Your task to perform on an android device: add a label to a message in the gmail app Image 0: 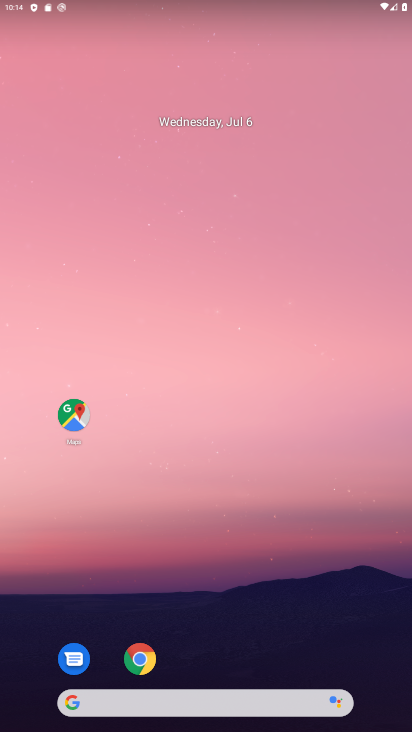
Step 0: click (203, 674)
Your task to perform on an android device: add a label to a message in the gmail app Image 1: 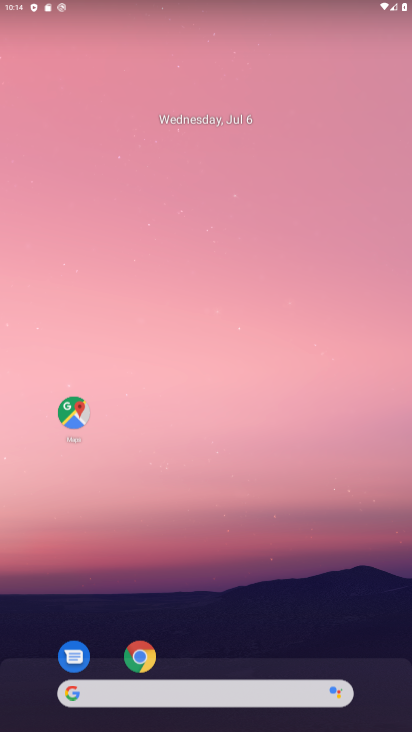
Step 1: drag from (206, 197) to (211, 41)
Your task to perform on an android device: add a label to a message in the gmail app Image 2: 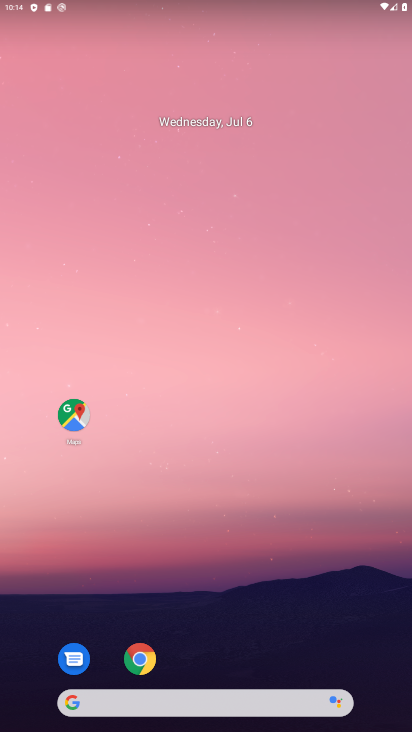
Step 2: drag from (215, 602) to (233, 210)
Your task to perform on an android device: add a label to a message in the gmail app Image 3: 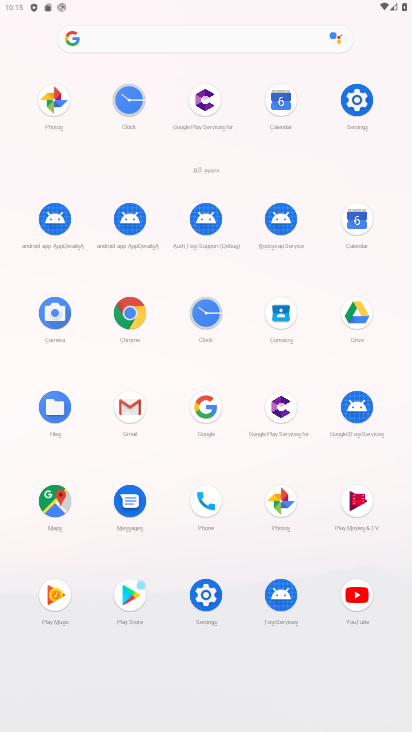
Step 3: click (128, 400)
Your task to perform on an android device: add a label to a message in the gmail app Image 4: 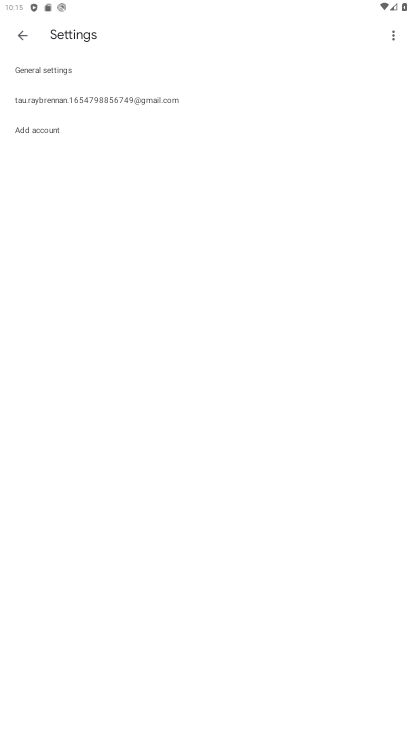
Step 4: click (26, 35)
Your task to perform on an android device: add a label to a message in the gmail app Image 5: 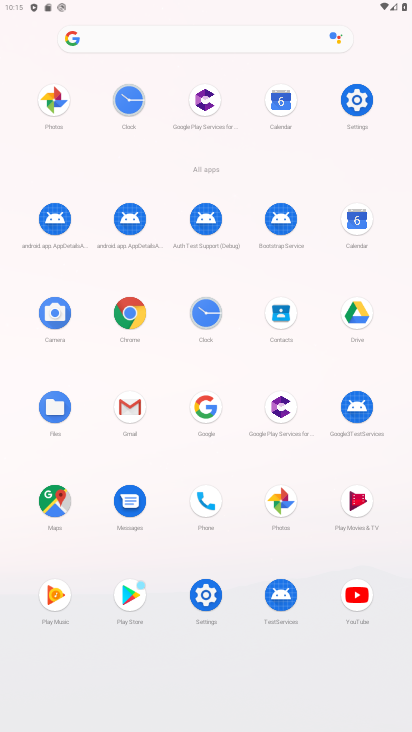
Step 5: click (130, 402)
Your task to perform on an android device: add a label to a message in the gmail app Image 6: 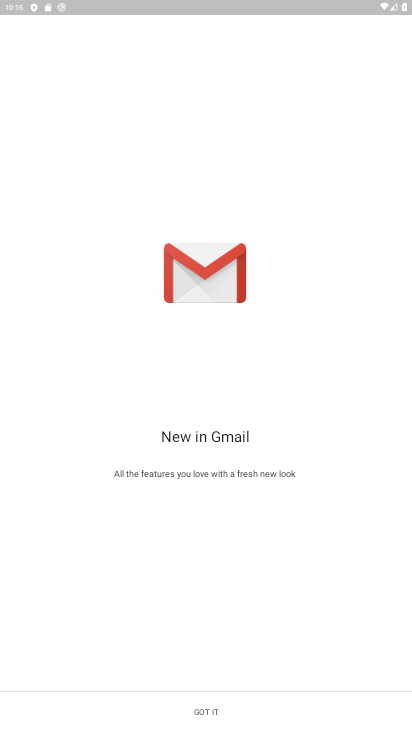
Step 6: click (213, 713)
Your task to perform on an android device: add a label to a message in the gmail app Image 7: 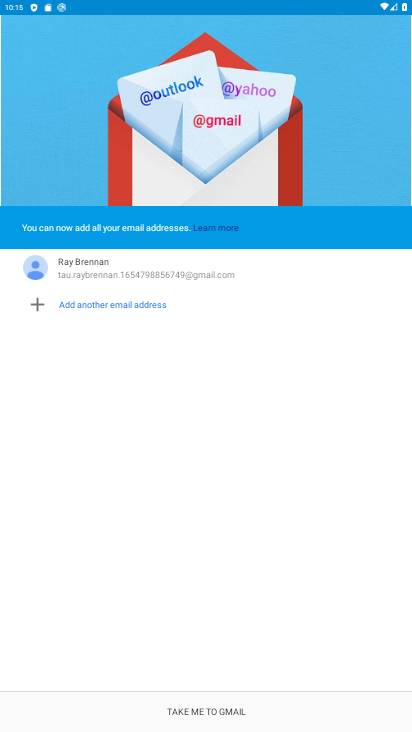
Step 7: click (213, 713)
Your task to perform on an android device: add a label to a message in the gmail app Image 8: 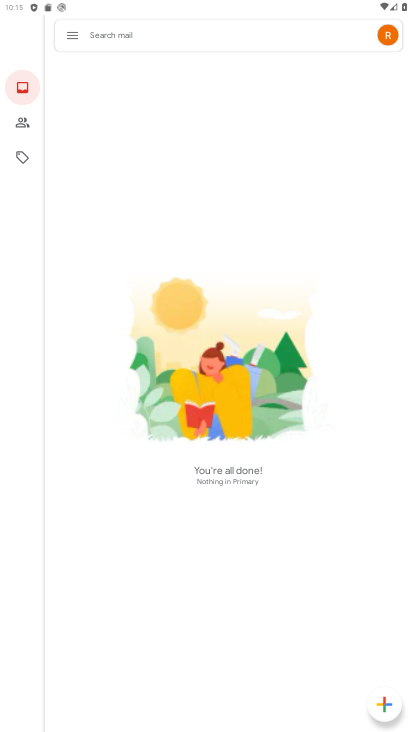
Step 8: task complete